Your task to perform on an android device: What's the weather? Image 0: 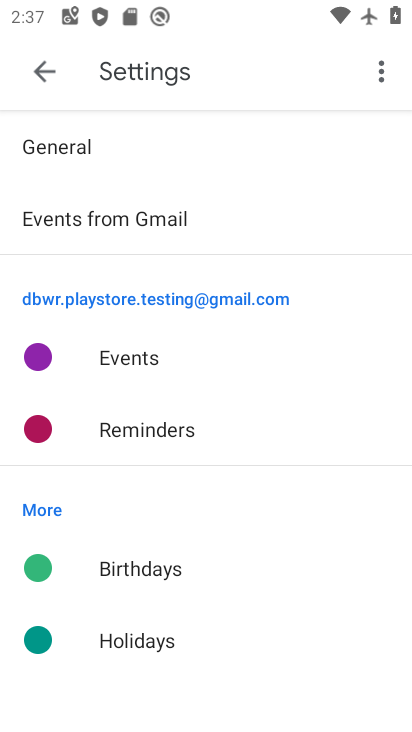
Step 0: drag from (326, 560) to (328, 205)
Your task to perform on an android device: What's the weather? Image 1: 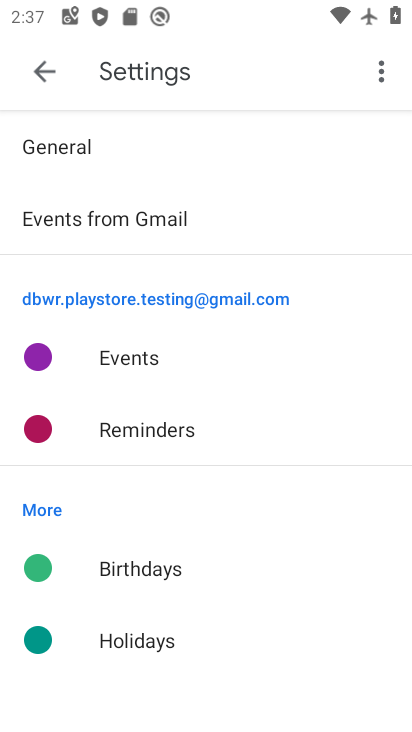
Step 1: press home button
Your task to perform on an android device: What's the weather? Image 2: 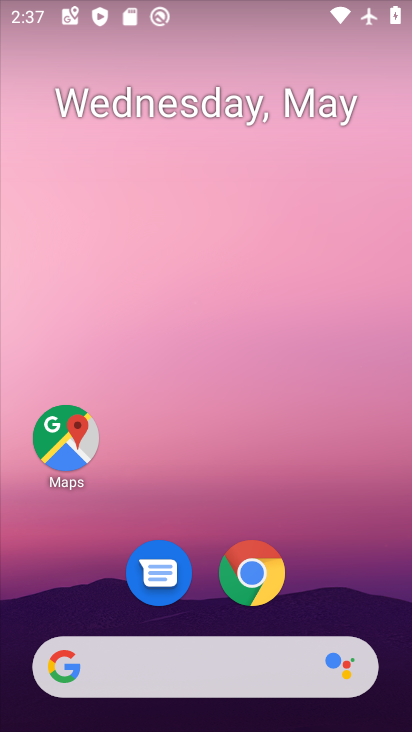
Step 2: click (147, 668)
Your task to perform on an android device: What's the weather? Image 3: 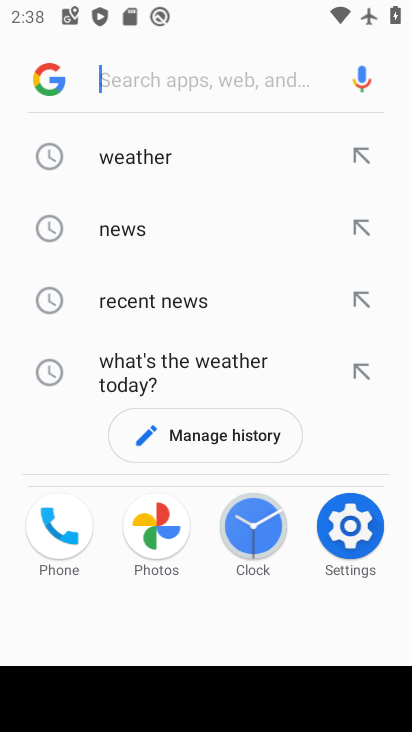
Step 3: type "what's the weather"
Your task to perform on an android device: What's the weather? Image 4: 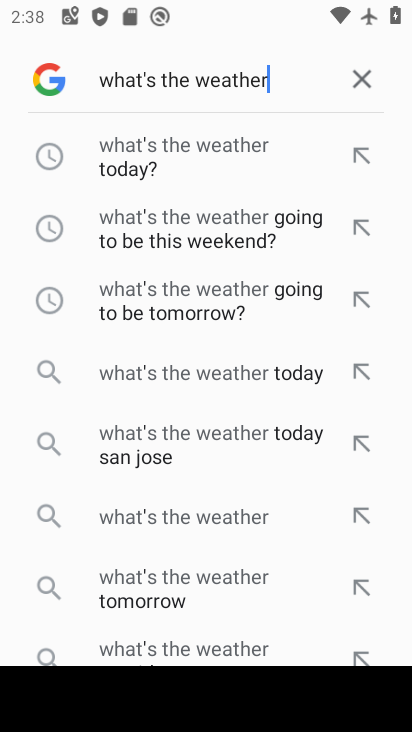
Step 4: click (187, 518)
Your task to perform on an android device: What's the weather? Image 5: 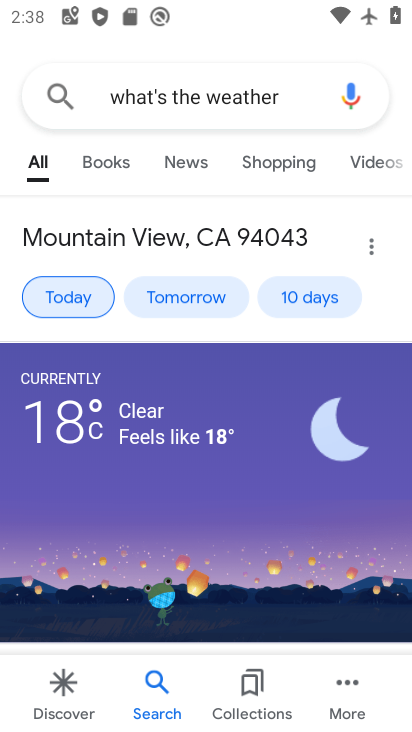
Step 5: task complete